Your task to perform on an android device: Check the news Image 0: 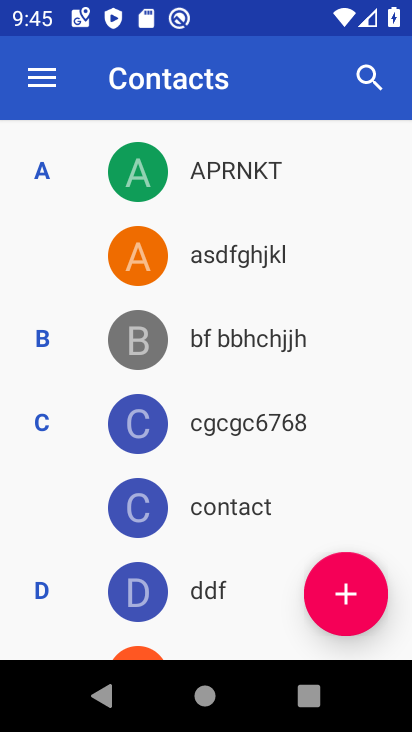
Step 0: press back button
Your task to perform on an android device: Check the news Image 1: 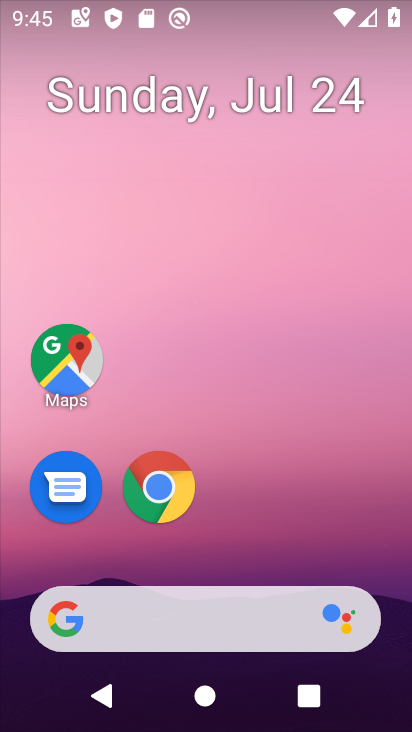
Step 1: click (196, 615)
Your task to perform on an android device: Check the news Image 2: 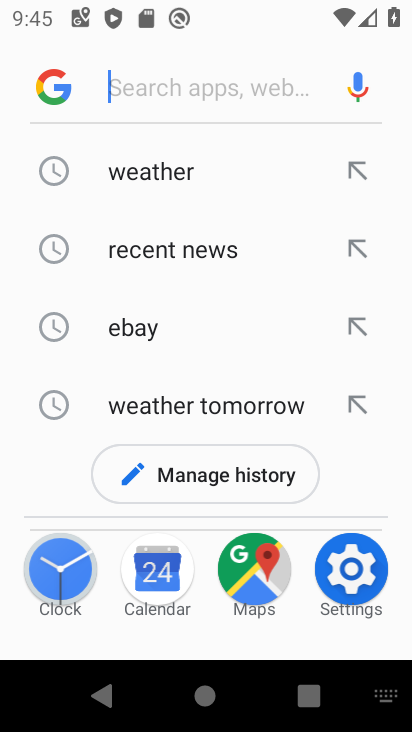
Step 2: drag from (179, 389) to (240, 9)
Your task to perform on an android device: Check the news Image 3: 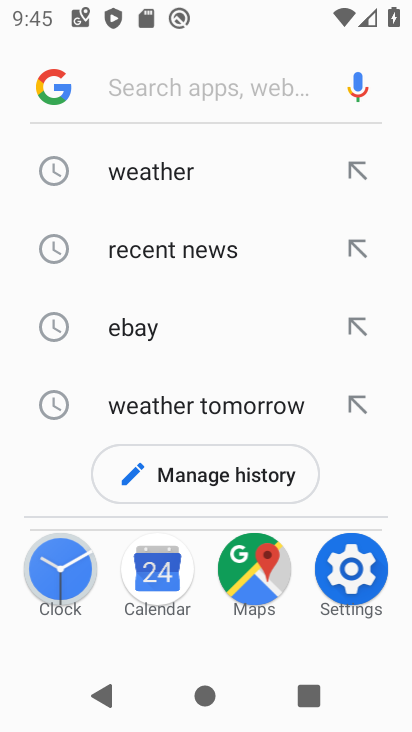
Step 3: click (111, 109)
Your task to perform on an android device: Check the news Image 4: 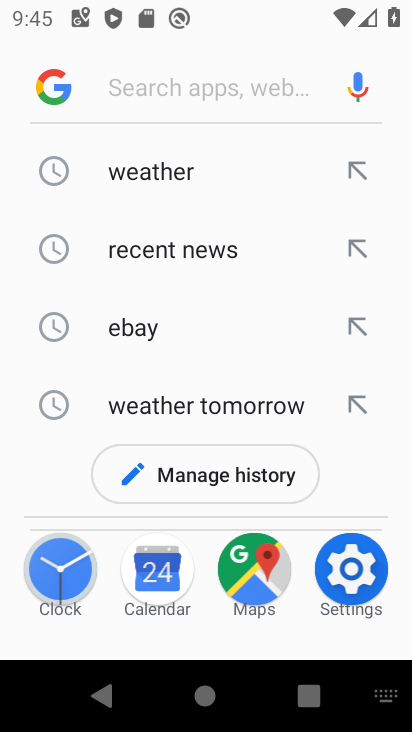
Step 4: type "news"
Your task to perform on an android device: Check the news Image 5: 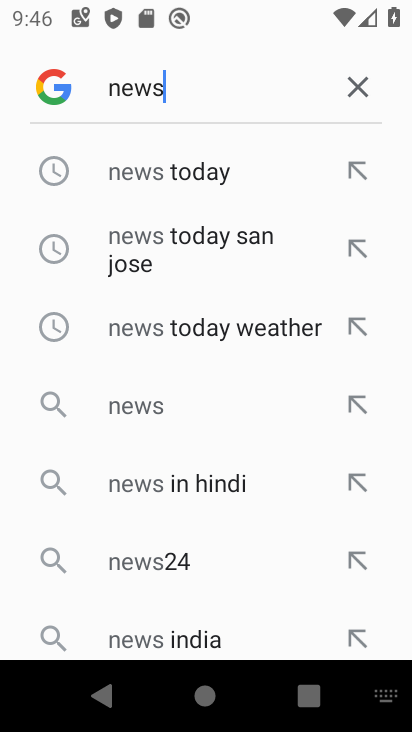
Step 5: click (128, 417)
Your task to perform on an android device: Check the news Image 6: 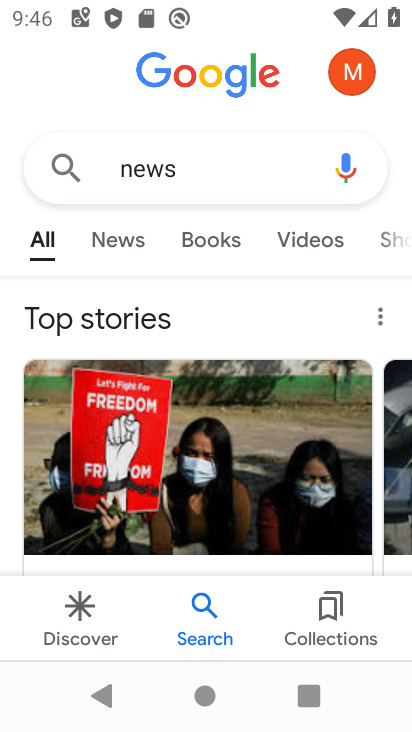
Step 6: task complete